Your task to perform on an android device: Go to wifi settings Image 0: 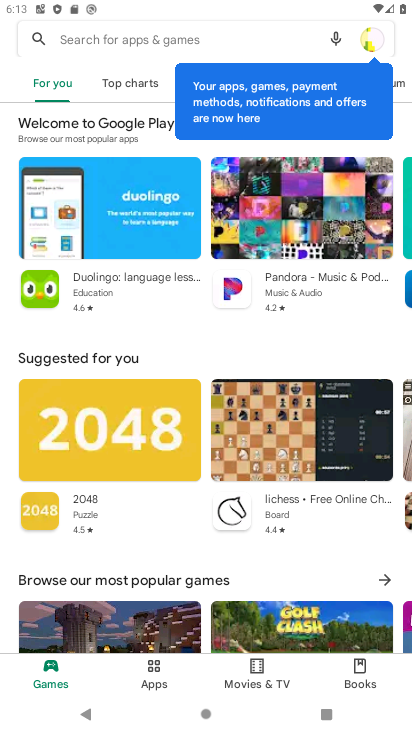
Step 0: press home button
Your task to perform on an android device: Go to wifi settings Image 1: 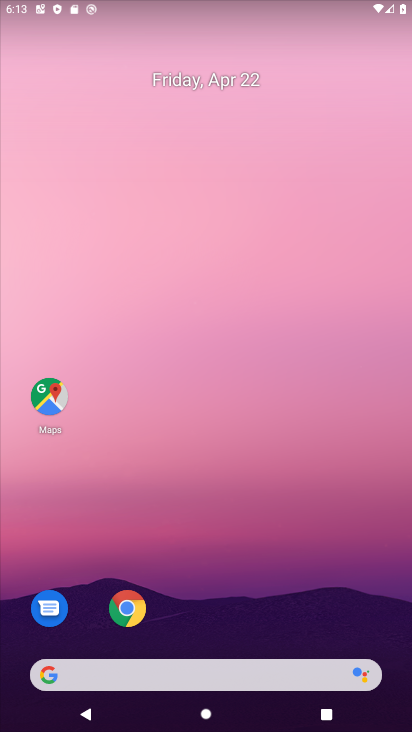
Step 1: drag from (243, 618) to (238, 124)
Your task to perform on an android device: Go to wifi settings Image 2: 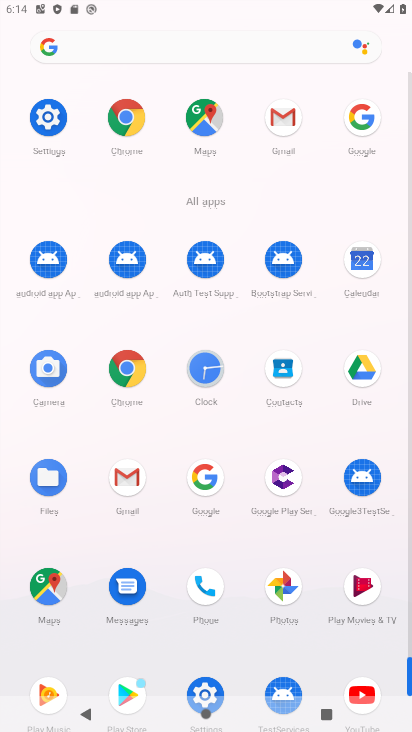
Step 2: click (48, 123)
Your task to perform on an android device: Go to wifi settings Image 3: 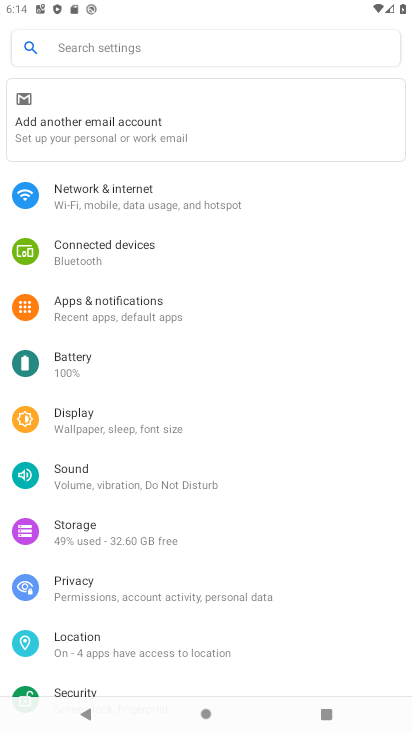
Step 3: click (136, 196)
Your task to perform on an android device: Go to wifi settings Image 4: 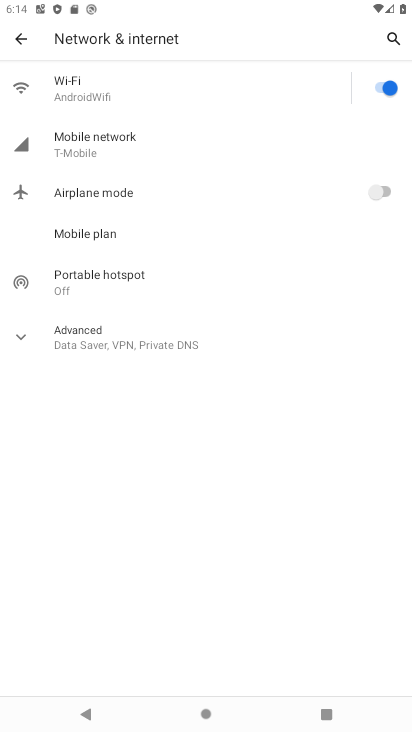
Step 4: click (112, 97)
Your task to perform on an android device: Go to wifi settings Image 5: 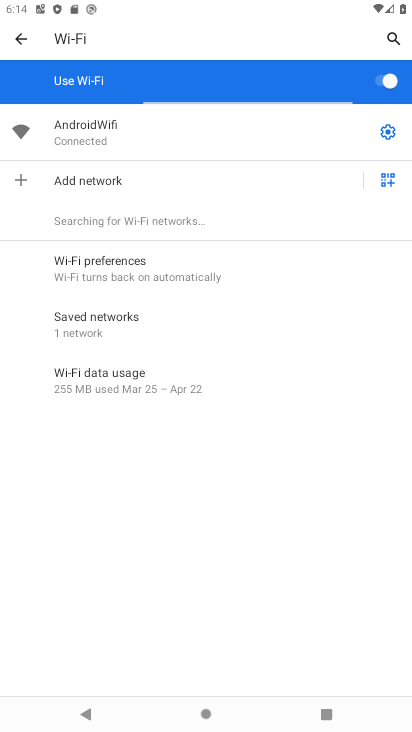
Step 5: task complete